Your task to perform on an android device: check the backup settings in the google photos Image 0: 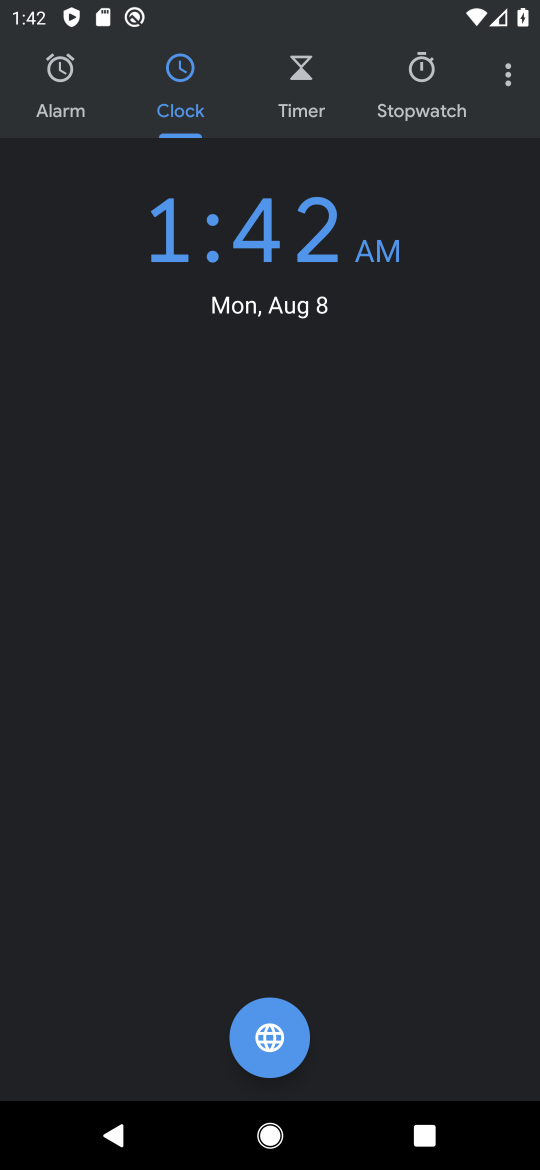
Step 0: press home button
Your task to perform on an android device: check the backup settings in the google photos Image 1: 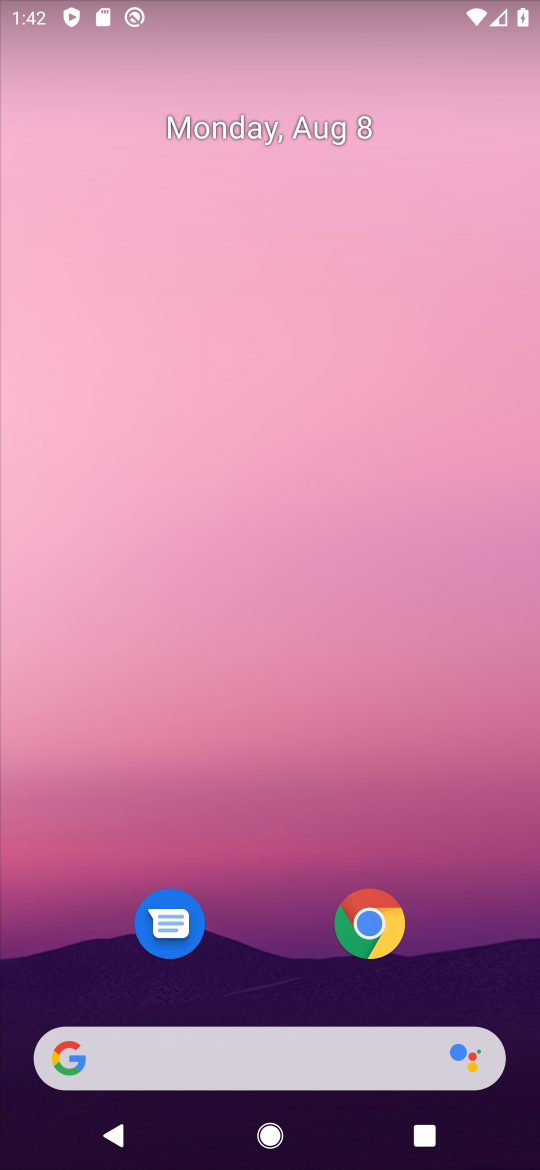
Step 1: task complete